Your task to perform on an android device: all mails in gmail Image 0: 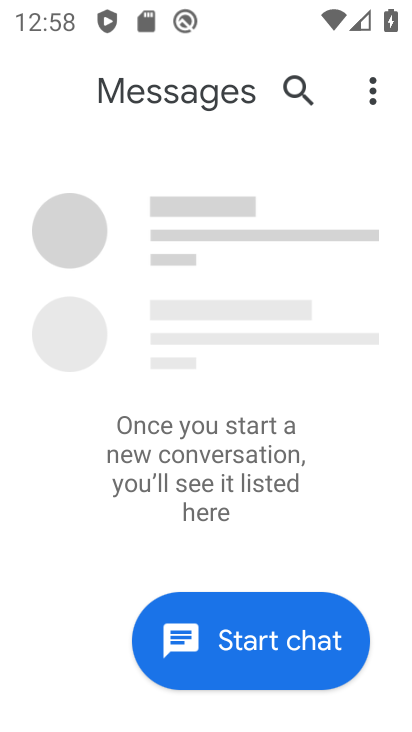
Step 0: press home button
Your task to perform on an android device: all mails in gmail Image 1: 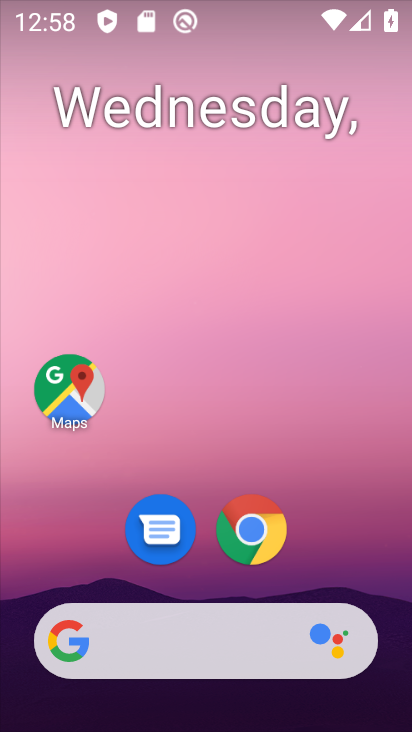
Step 1: drag from (198, 576) to (180, 173)
Your task to perform on an android device: all mails in gmail Image 2: 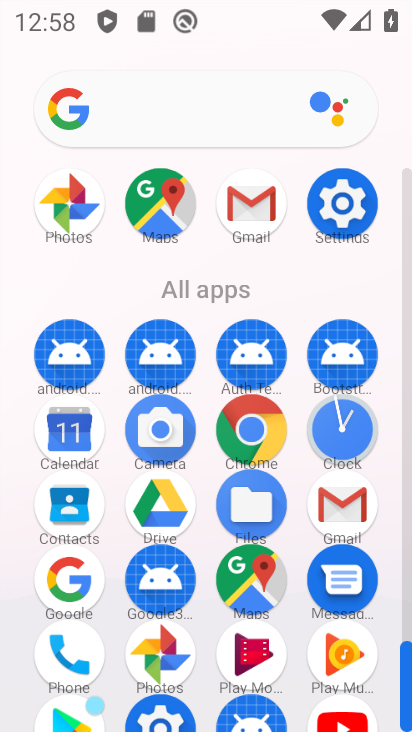
Step 2: click (235, 204)
Your task to perform on an android device: all mails in gmail Image 3: 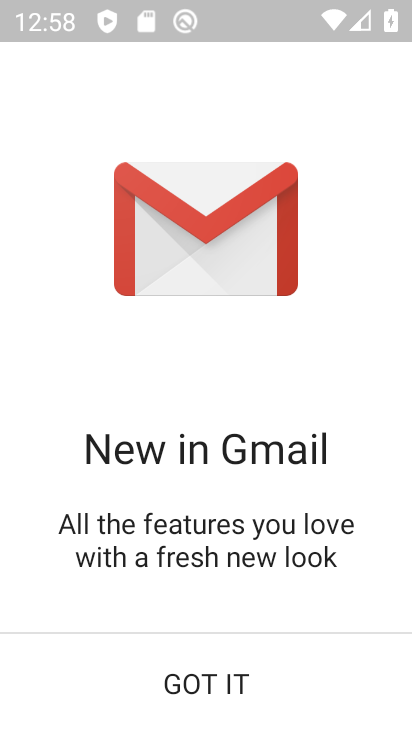
Step 3: click (186, 700)
Your task to perform on an android device: all mails in gmail Image 4: 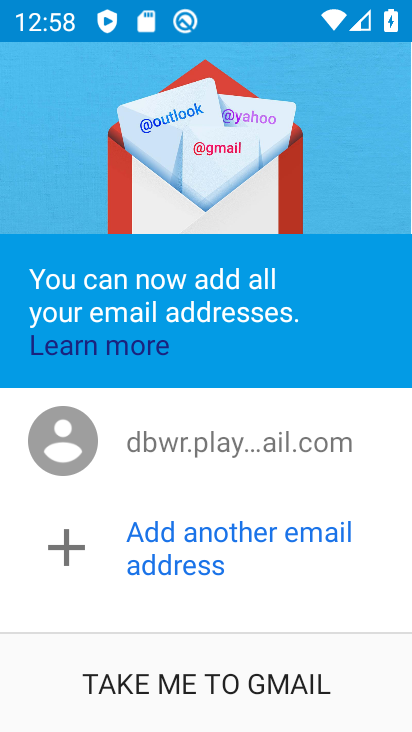
Step 4: click (216, 700)
Your task to perform on an android device: all mails in gmail Image 5: 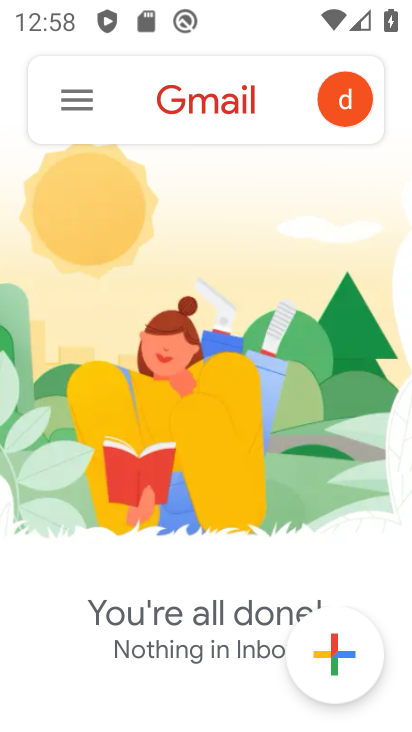
Step 5: click (81, 121)
Your task to perform on an android device: all mails in gmail Image 6: 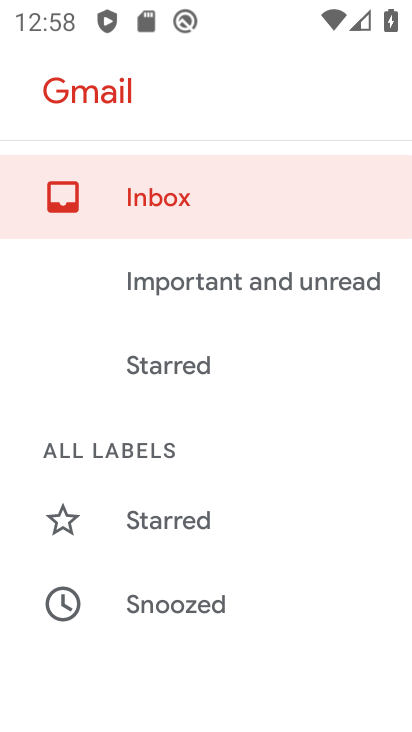
Step 6: drag from (119, 656) to (176, 162)
Your task to perform on an android device: all mails in gmail Image 7: 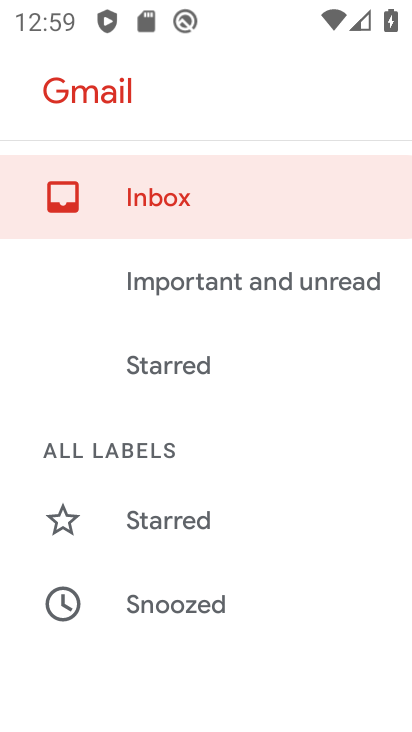
Step 7: drag from (104, 581) to (102, 106)
Your task to perform on an android device: all mails in gmail Image 8: 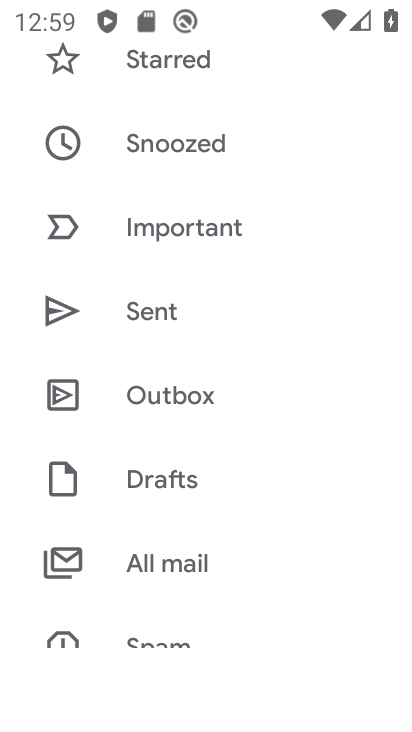
Step 8: drag from (86, 590) to (132, 207)
Your task to perform on an android device: all mails in gmail Image 9: 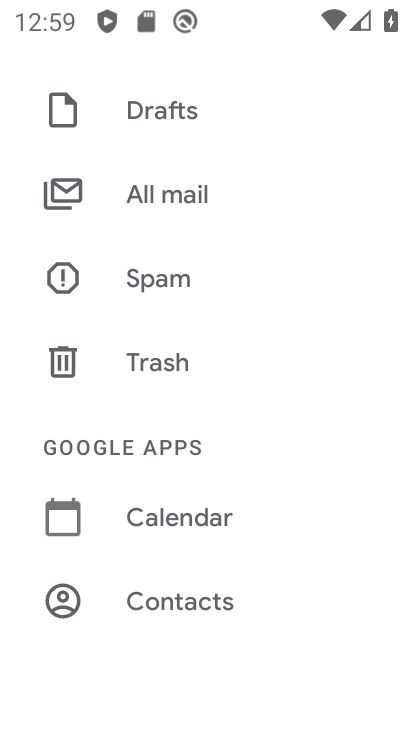
Step 9: click (179, 211)
Your task to perform on an android device: all mails in gmail Image 10: 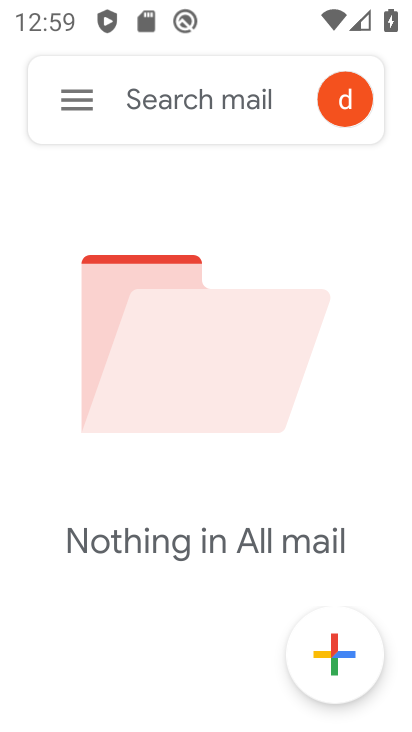
Step 10: task complete